Your task to perform on an android device: change keyboard looks Image 0: 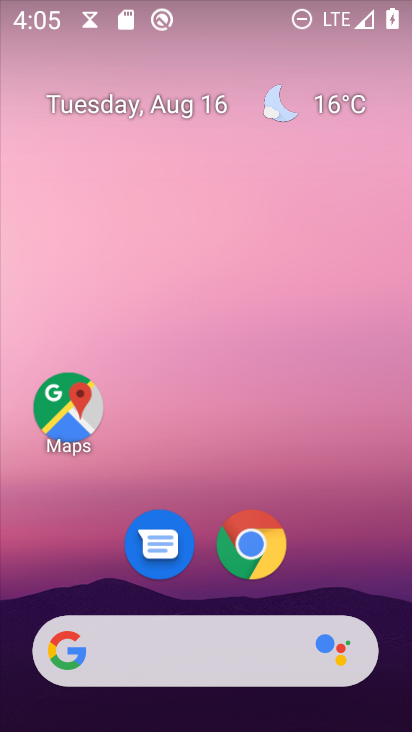
Step 0: press home button
Your task to perform on an android device: change keyboard looks Image 1: 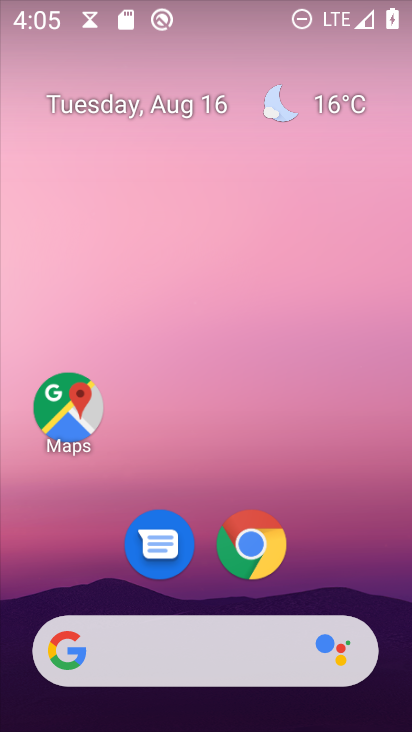
Step 1: drag from (215, 654) to (238, 96)
Your task to perform on an android device: change keyboard looks Image 2: 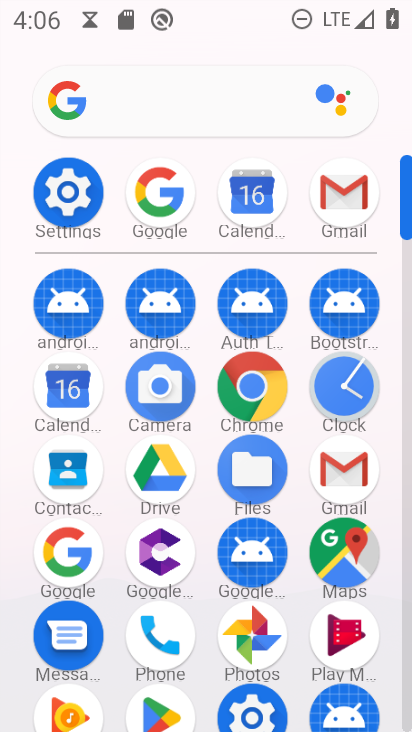
Step 2: click (66, 193)
Your task to perform on an android device: change keyboard looks Image 3: 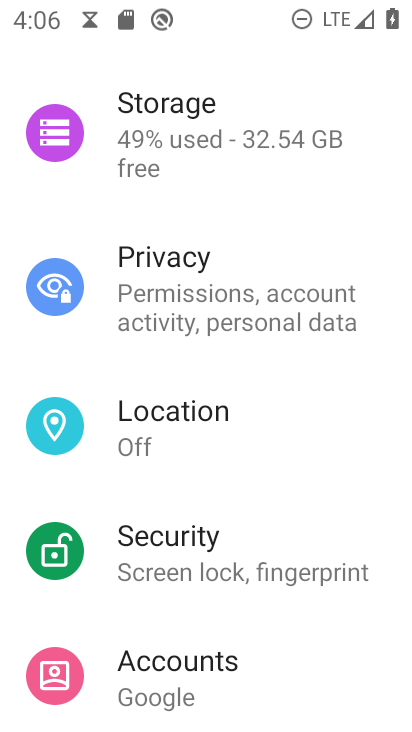
Step 3: drag from (170, 479) to (285, 331)
Your task to perform on an android device: change keyboard looks Image 4: 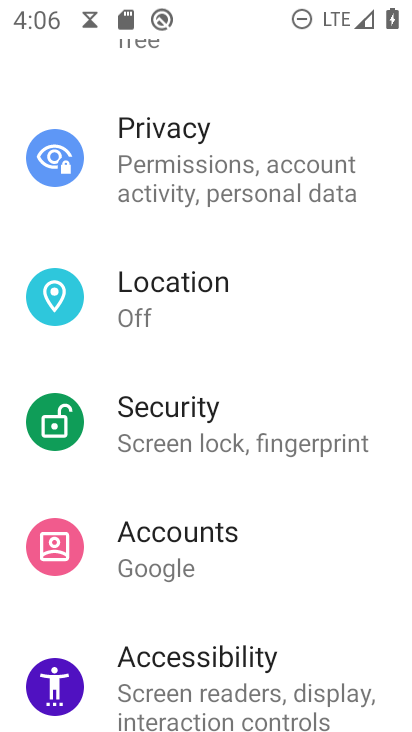
Step 4: drag from (184, 616) to (285, 443)
Your task to perform on an android device: change keyboard looks Image 5: 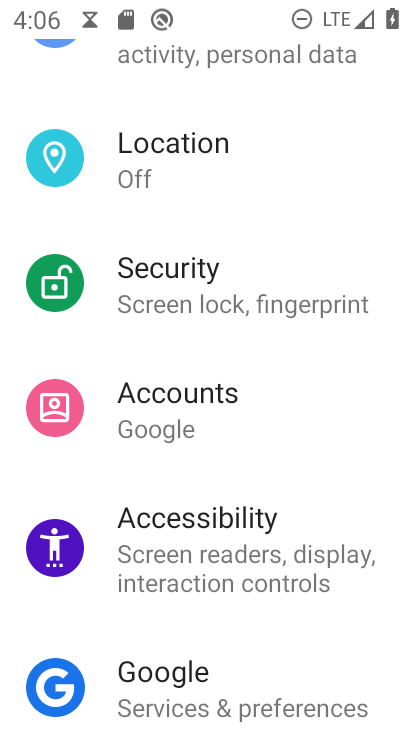
Step 5: drag from (167, 611) to (261, 464)
Your task to perform on an android device: change keyboard looks Image 6: 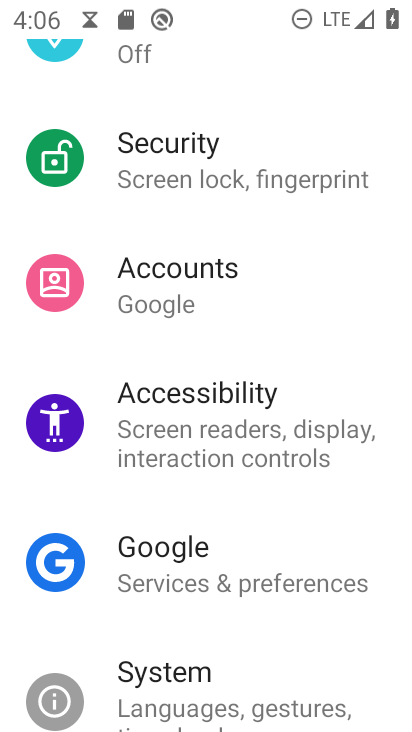
Step 6: drag from (150, 622) to (232, 464)
Your task to perform on an android device: change keyboard looks Image 7: 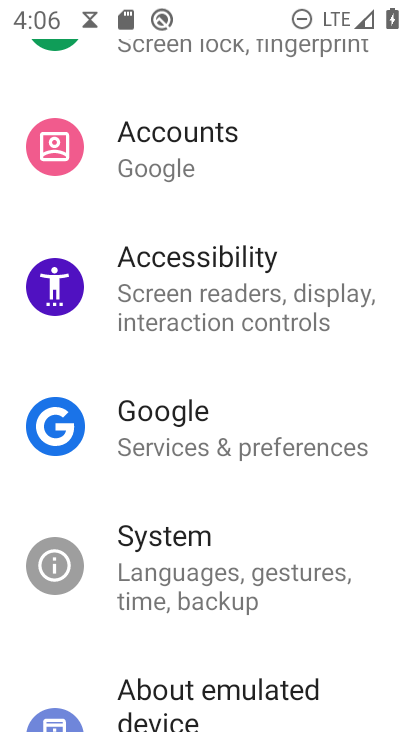
Step 7: drag from (115, 629) to (206, 424)
Your task to perform on an android device: change keyboard looks Image 8: 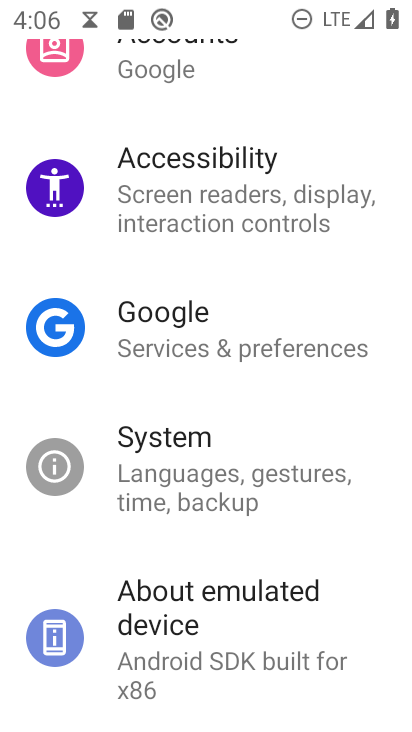
Step 8: click (177, 441)
Your task to perform on an android device: change keyboard looks Image 9: 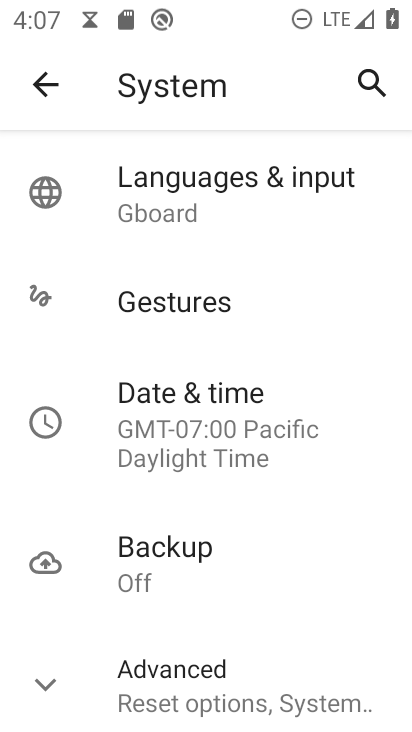
Step 9: click (228, 190)
Your task to perform on an android device: change keyboard looks Image 10: 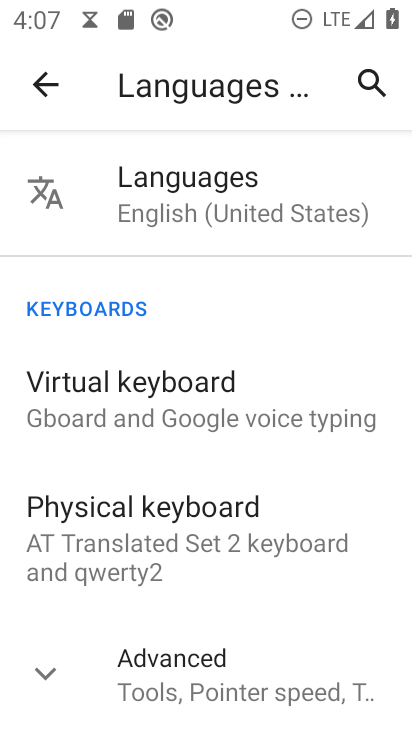
Step 10: click (213, 400)
Your task to perform on an android device: change keyboard looks Image 11: 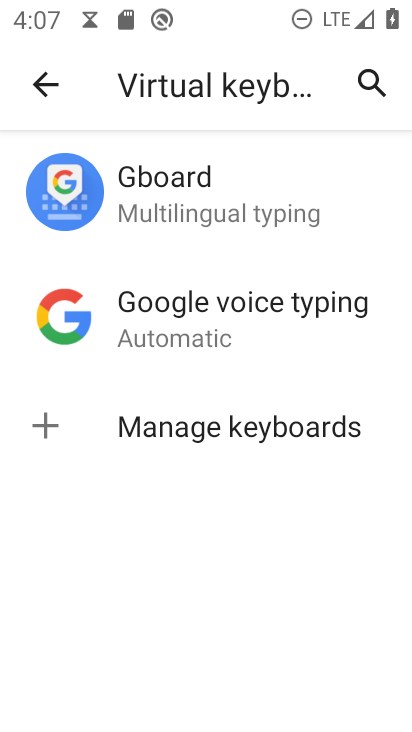
Step 11: click (172, 216)
Your task to perform on an android device: change keyboard looks Image 12: 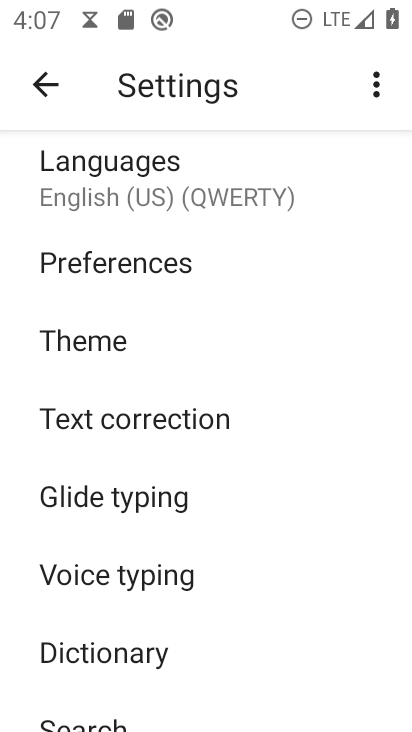
Step 12: click (85, 346)
Your task to perform on an android device: change keyboard looks Image 13: 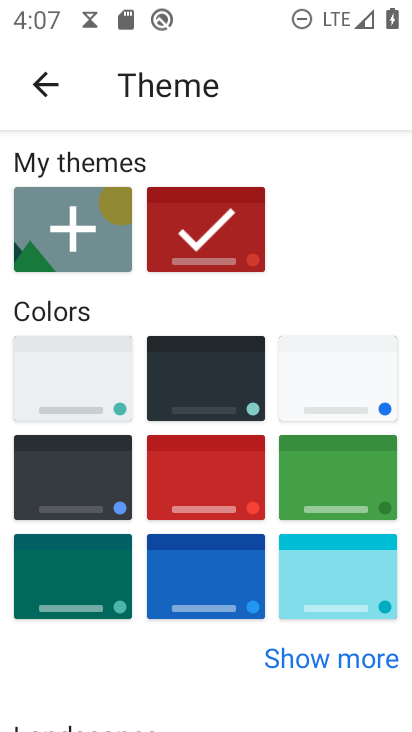
Step 13: click (217, 395)
Your task to perform on an android device: change keyboard looks Image 14: 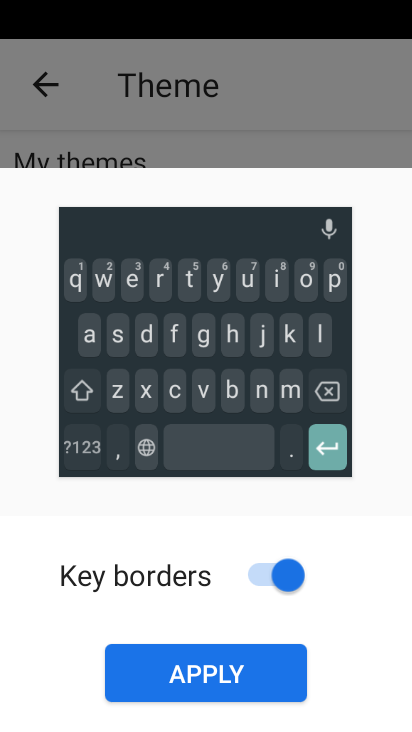
Step 14: click (205, 676)
Your task to perform on an android device: change keyboard looks Image 15: 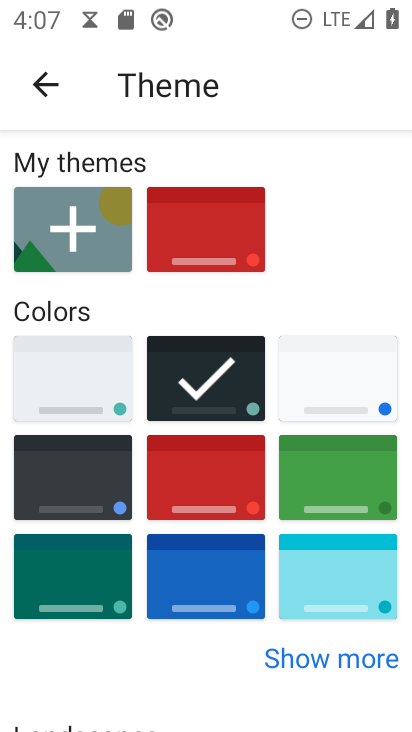
Step 15: task complete